Your task to perform on an android device: turn on wifi Image 0: 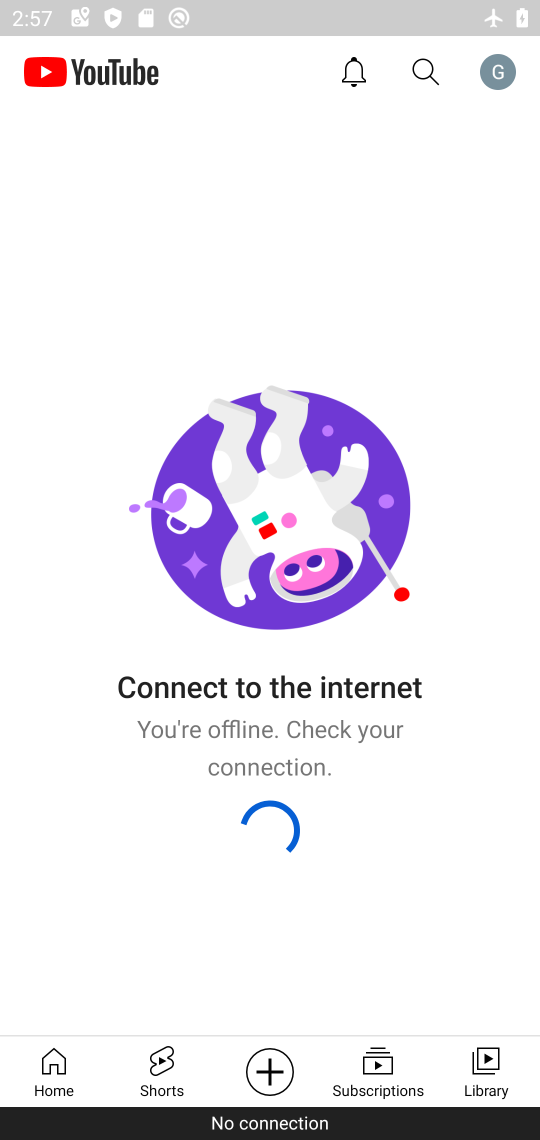
Step 0: press back button
Your task to perform on an android device: turn on wifi Image 1: 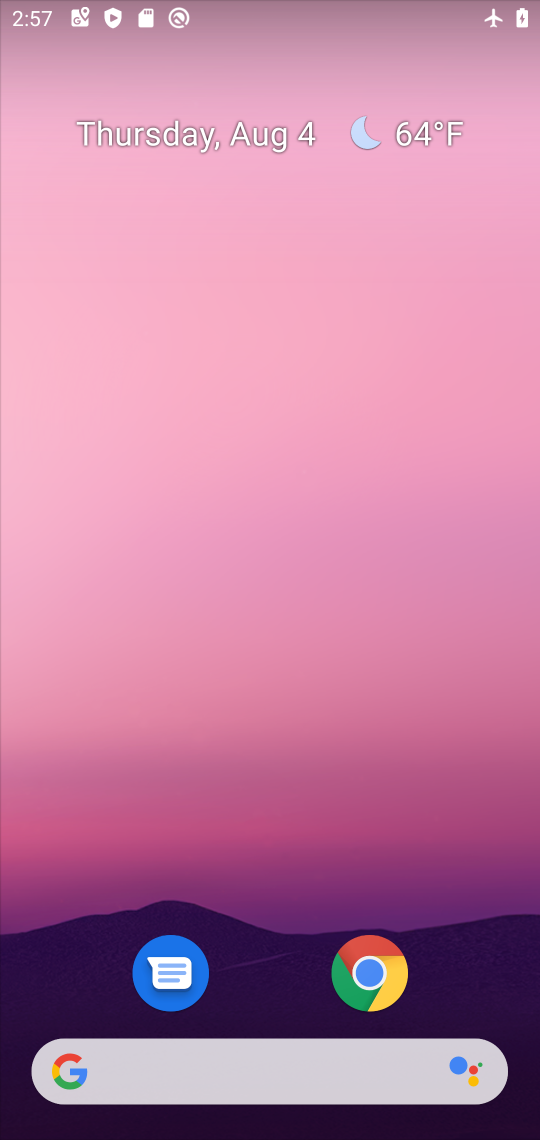
Step 1: press back button
Your task to perform on an android device: turn on wifi Image 2: 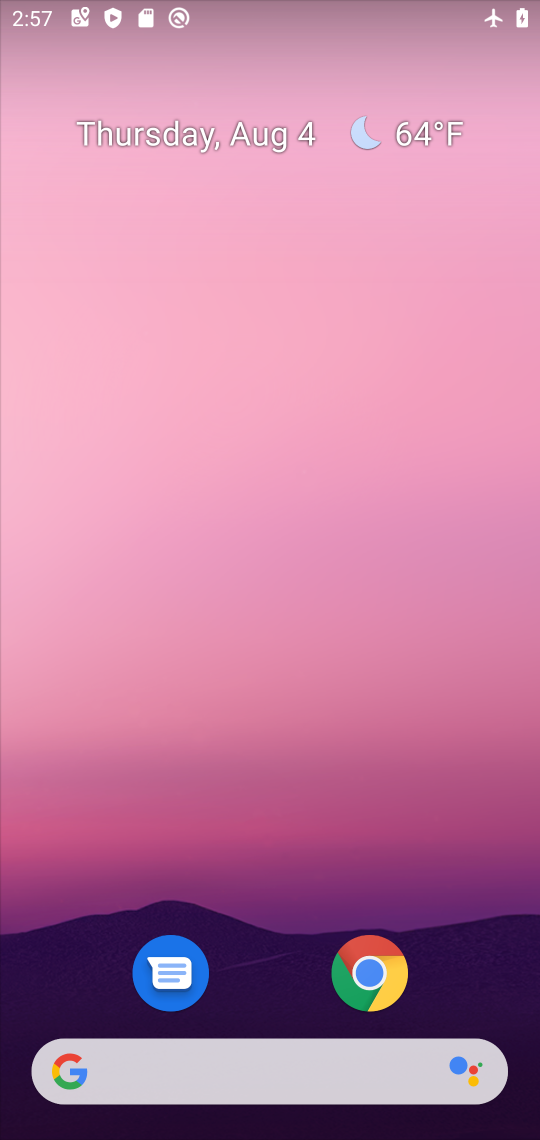
Step 2: drag from (299, 1038) to (293, 144)
Your task to perform on an android device: turn on wifi Image 3: 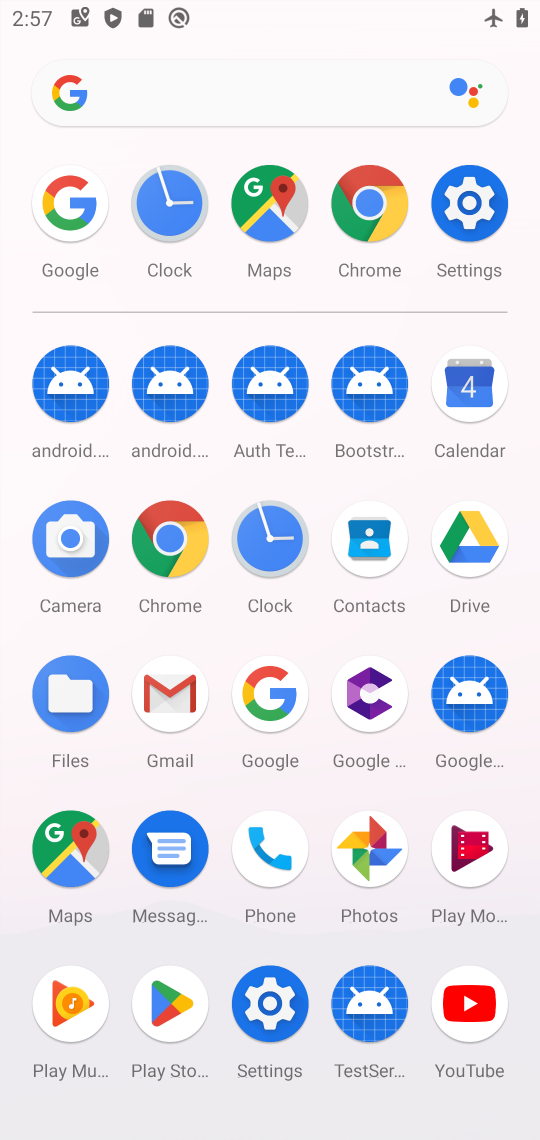
Step 3: click (437, 215)
Your task to perform on an android device: turn on wifi Image 4: 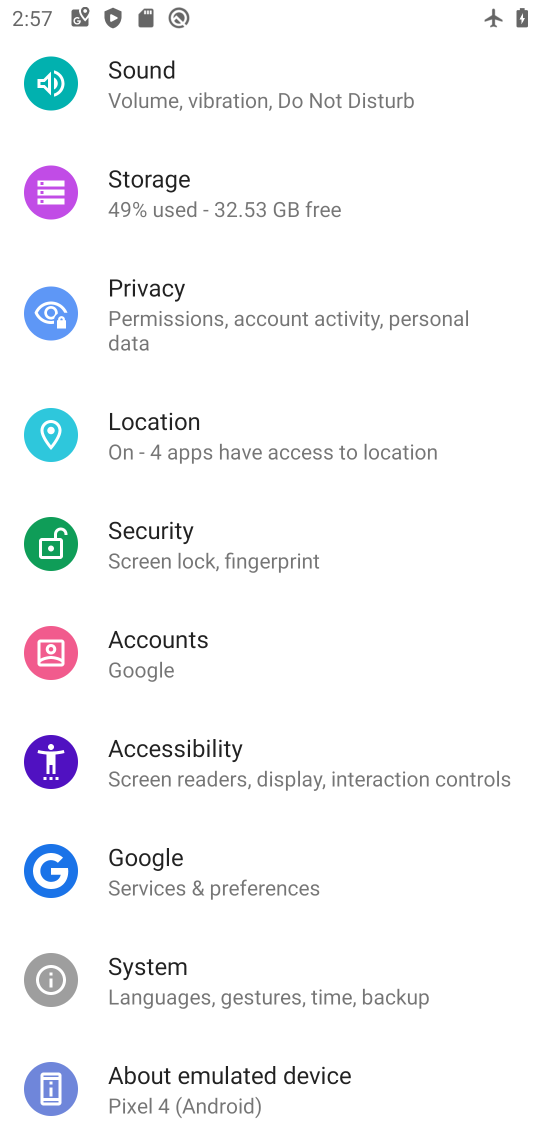
Step 4: drag from (212, 250) to (238, 660)
Your task to perform on an android device: turn on wifi Image 5: 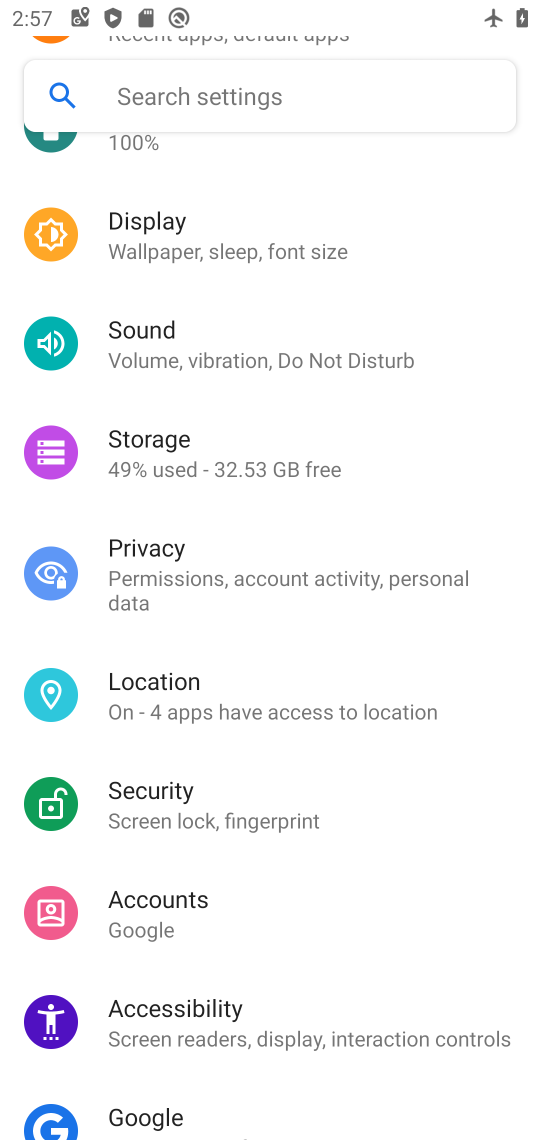
Step 5: drag from (180, 282) to (185, 867)
Your task to perform on an android device: turn on wifi Image 6: 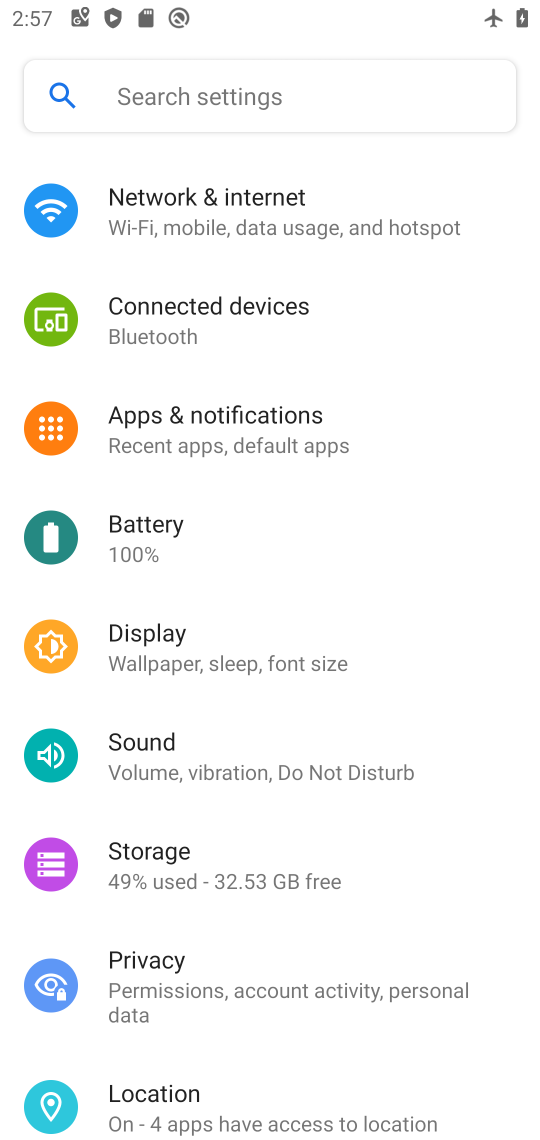
Step 6: click (200, 230)
Your task to perform on an android device: turn on wifi Image 7: 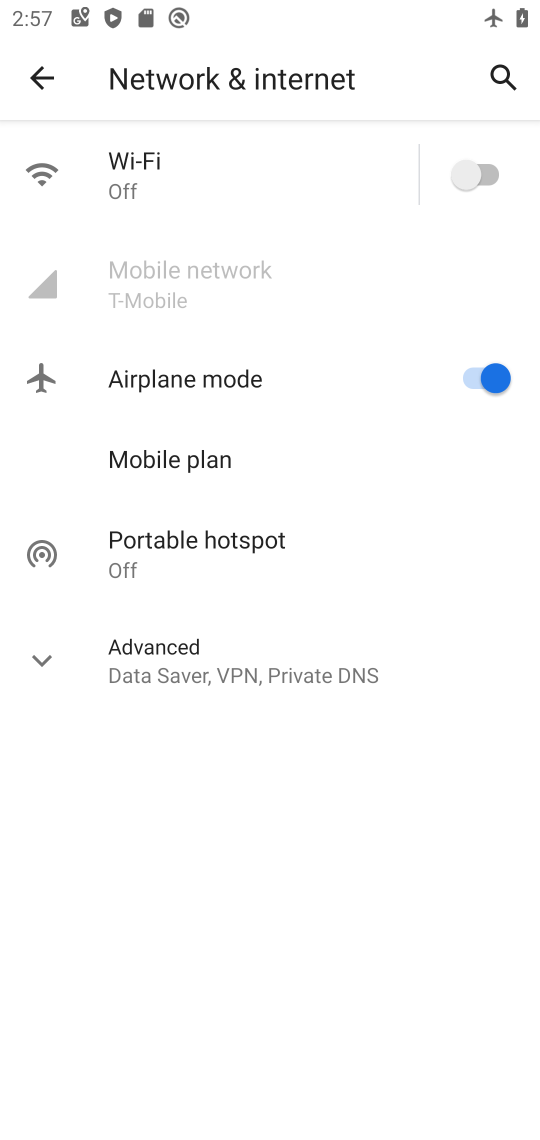
Step 7: click (457, 173)
Your task to perform on an android device: turn on wifi Image 8: 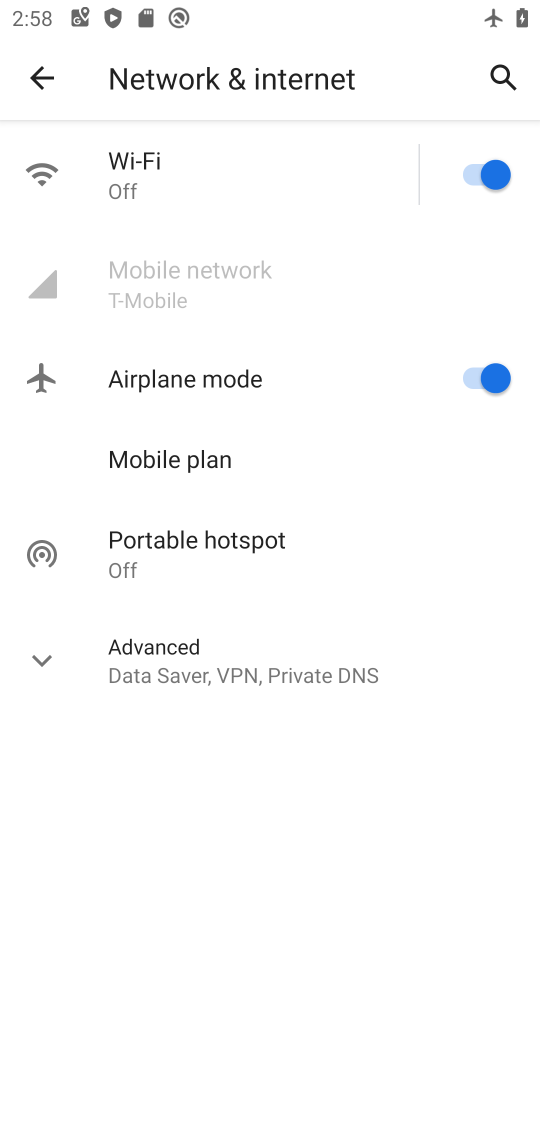
Step 8: task complete